Your task to perform on an android device: create a new album in the google photos Image 0: 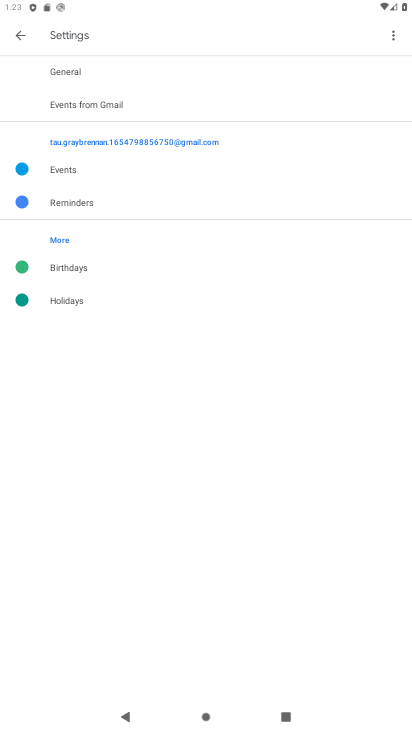
Step 0: press home button
Your task to perform on an android device: create a new album in the google photos Image 1: 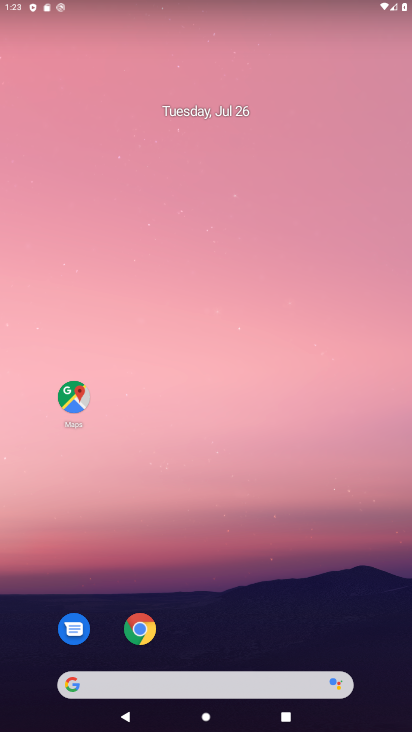
Step 1: task complete